Your task to perform on an android device: Open Google Maps Image 0: 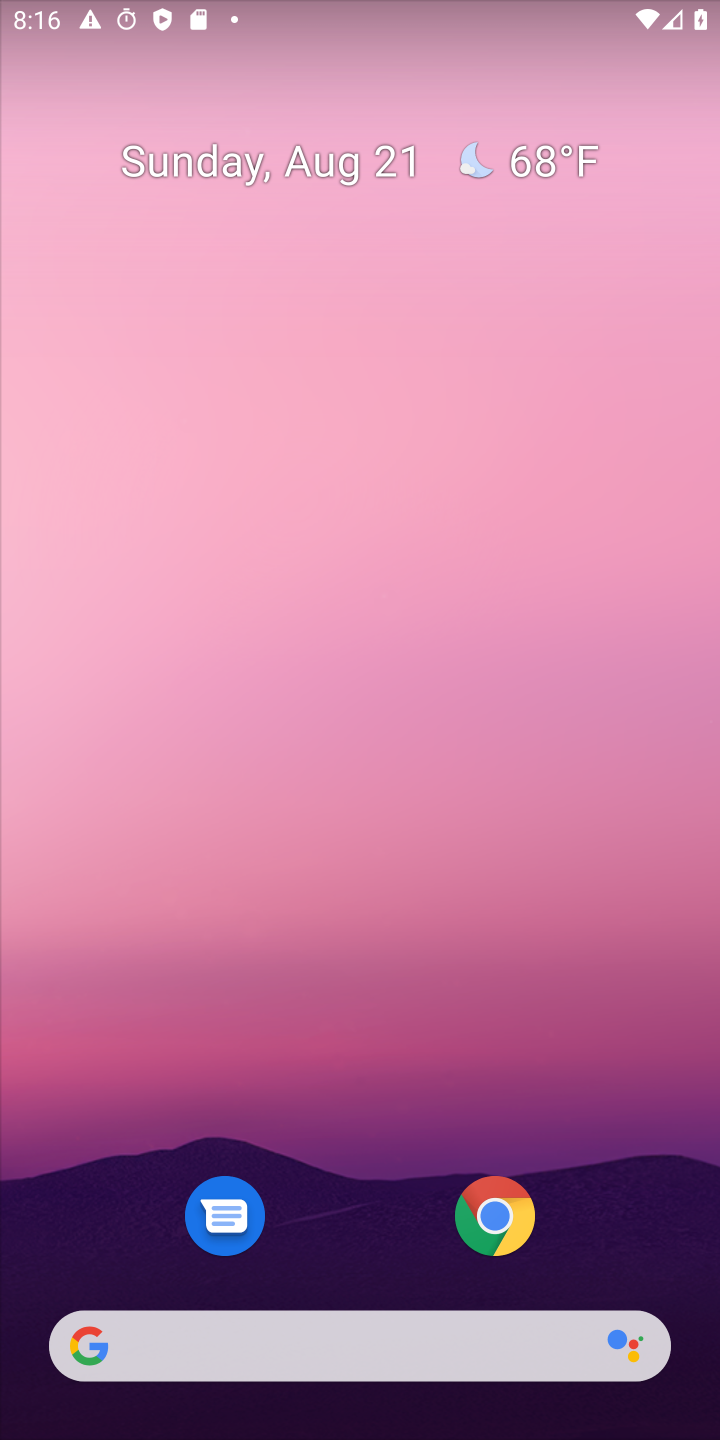
Step 0: drag from (376, 1197) to (487, 0)
Your task to perform on an android device: Open Google Maps Image 1: 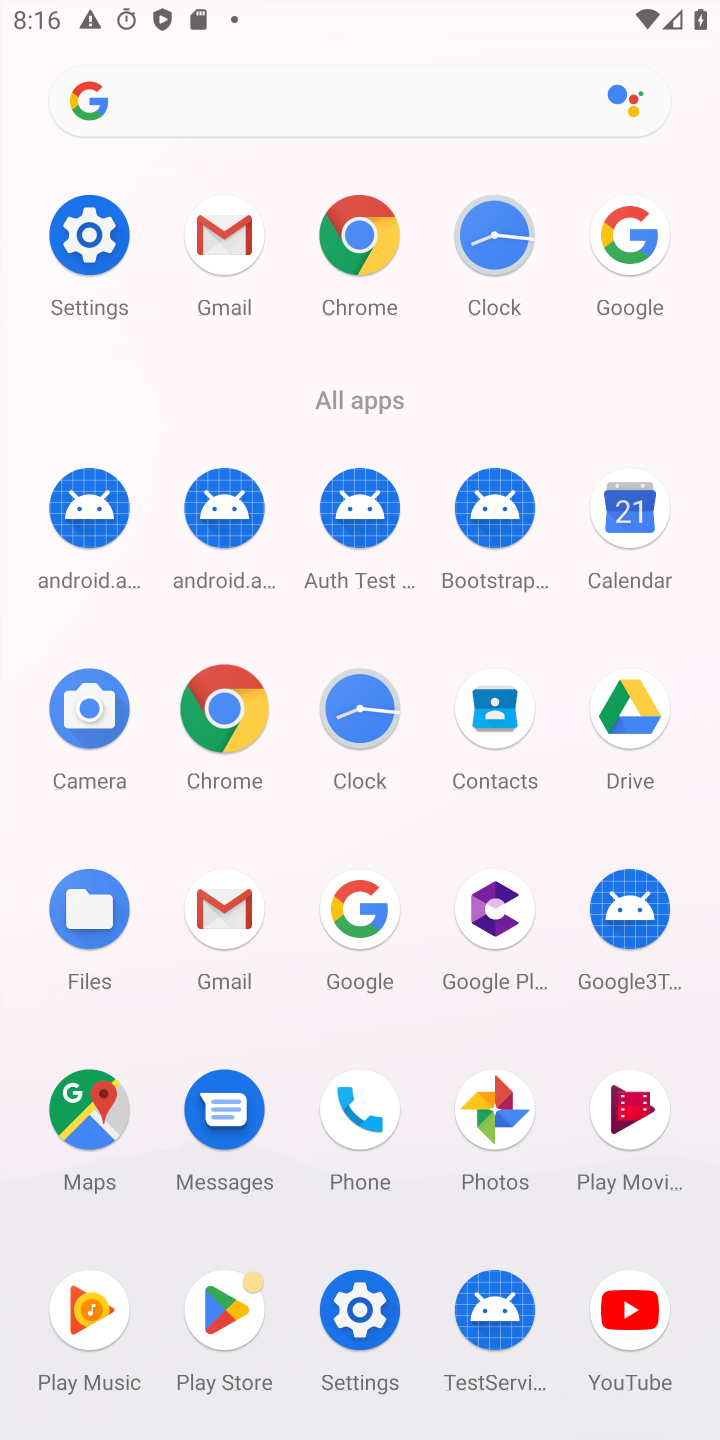
Step 1: click (371, 910)
Your task to perform on an android device: Open Google Maps Image 2: 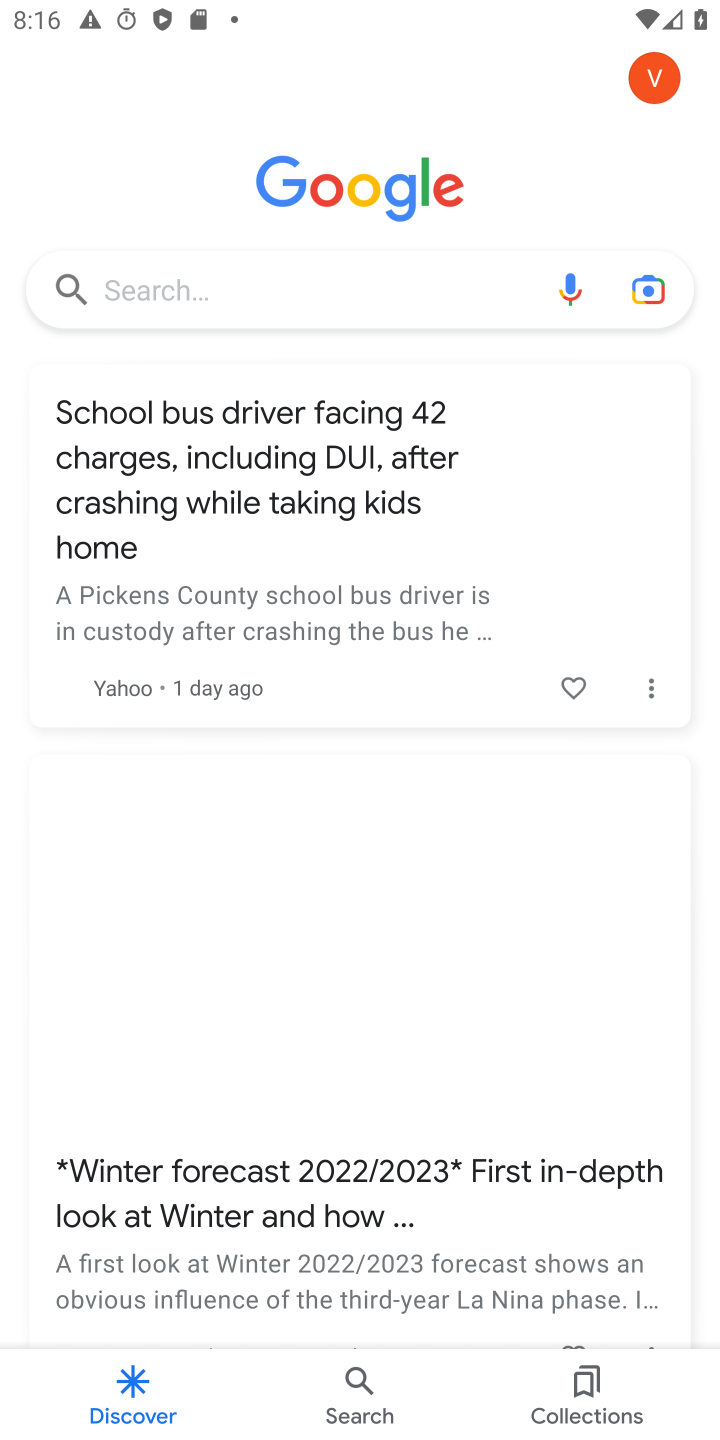
Step 2: press back button
Your task to perform on an android device: Open Google Maps Image 3: 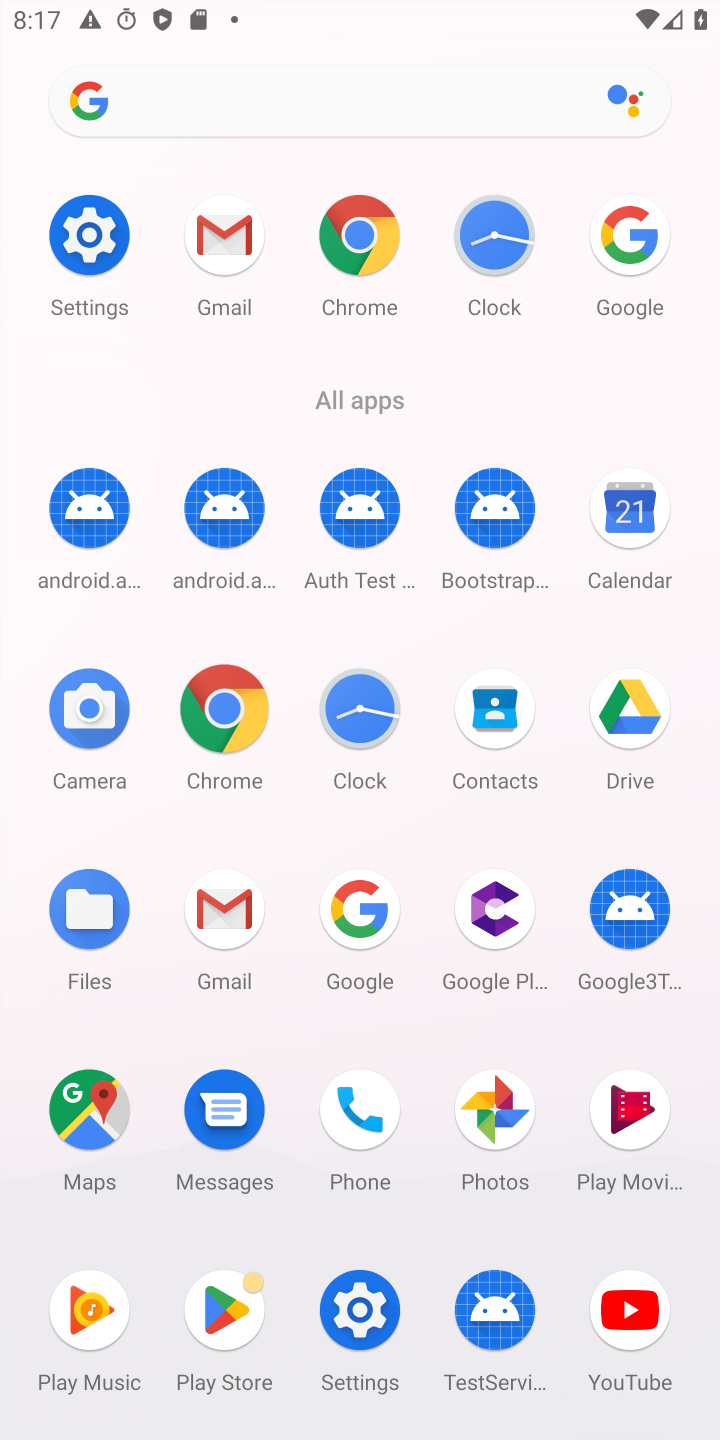
Step 3: click (74, 1104)
Your task to perform on an android device: Open Google Maps Image 4: 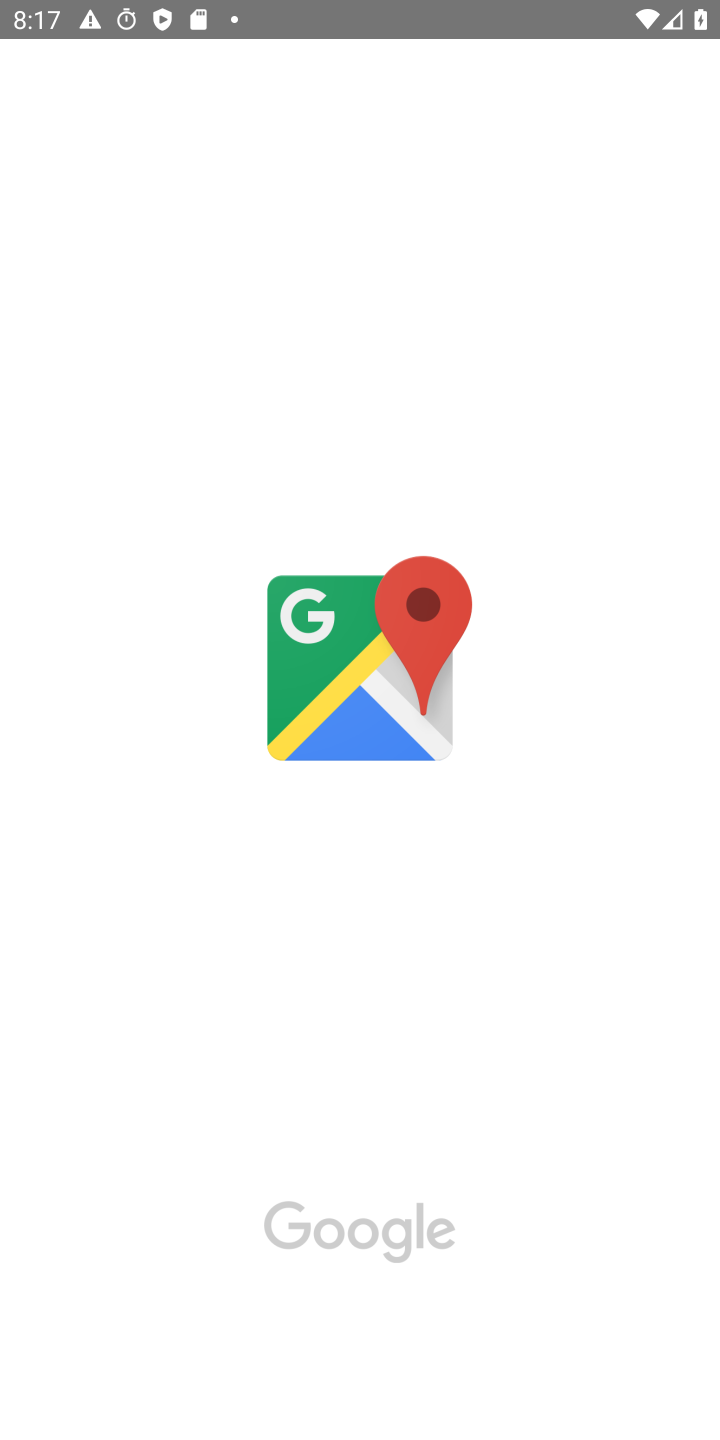
Step 4: task complete